Your task to perform on an android device: turn on sleep mode Image 0: 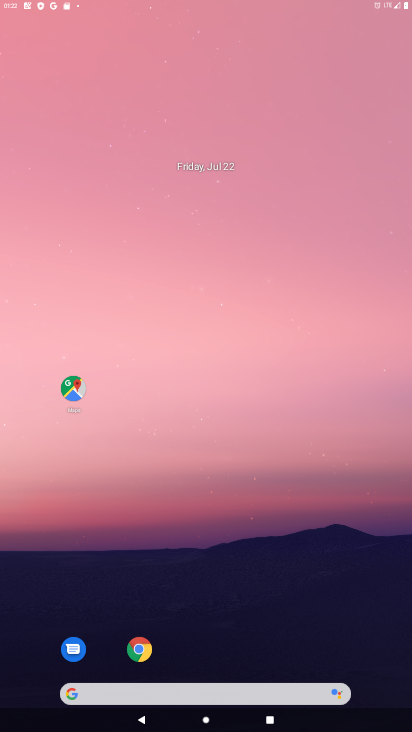
Step 0: click (272, 334)
Your task to perform on an android device: turn on sleep mode Image 1: 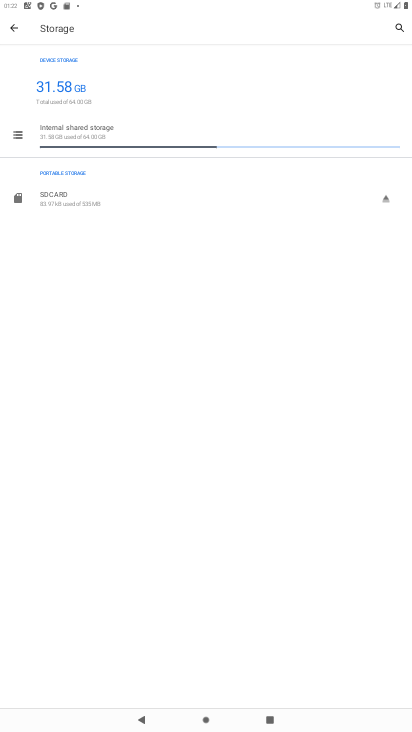
Step 1: press home button
Your task to perform on an android device: turn on sleep mode Image 2: 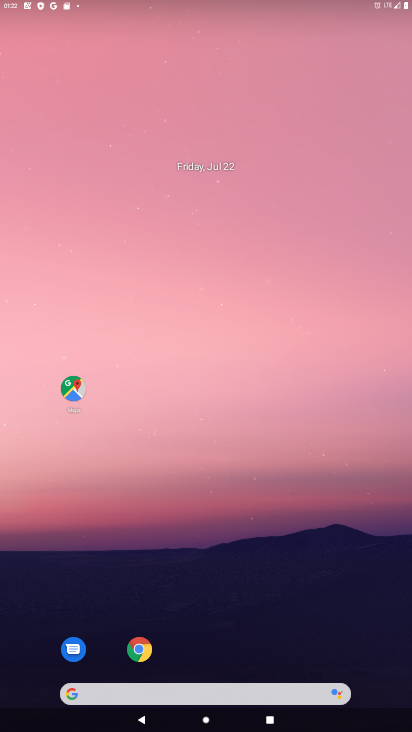
Step 2: drag from (297, 605) to (237, 5)
Your task to perform on an android device: turn on sleep mode Image 3: 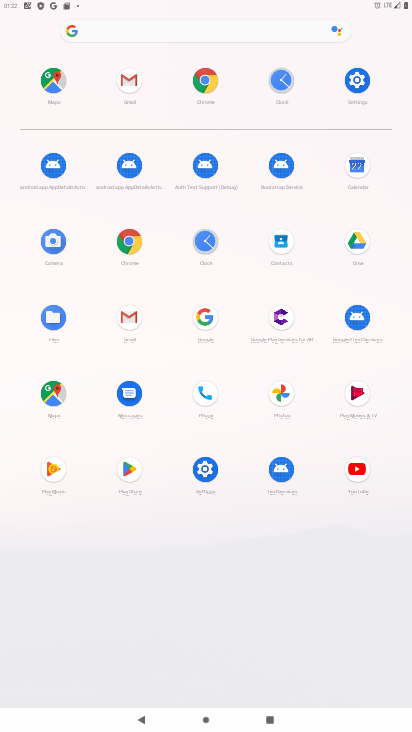
Step 3: click (358, 83)
Your task to perform on an android device: turn on sleep mode Image 4: 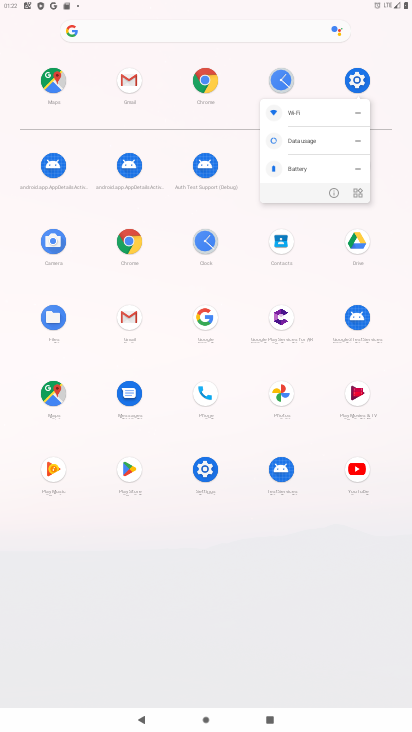
Step 4: click (357, 87)
Your task to perform on an android device: turn on sleep mode Image 5: 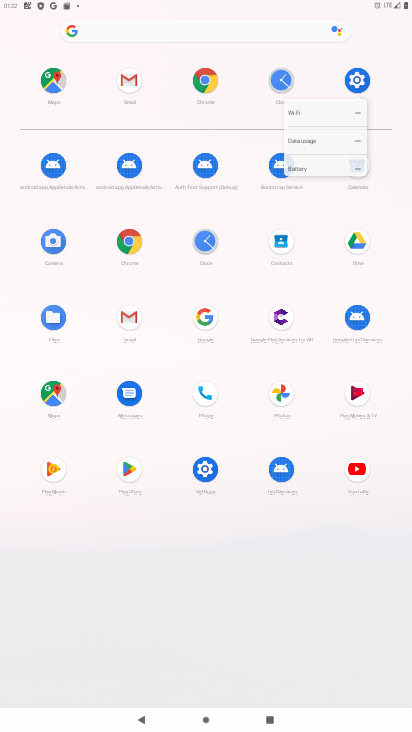
Step 5: click (358, 81)
Your task to perform on an android device: turn on sleep mode Image 6: 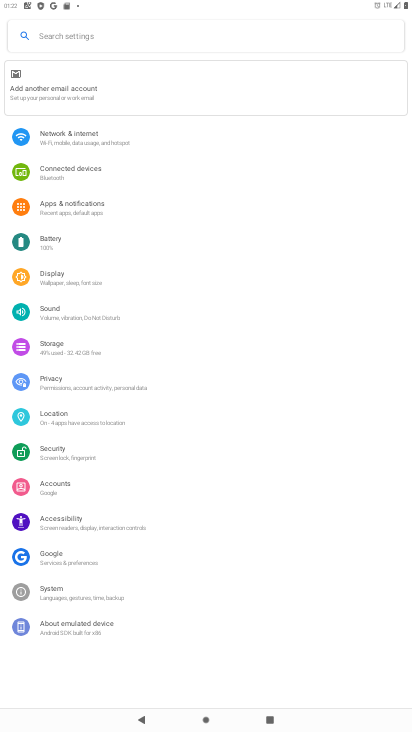
Step 6: click (48, 134)
Your task to perform on an android device: turn on sleep mode Image 7: 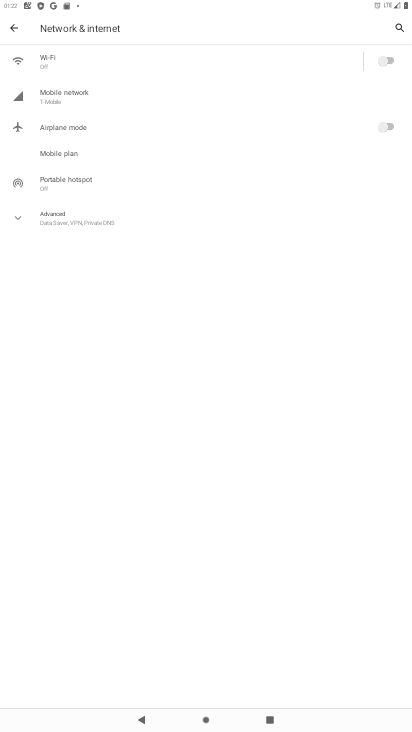
Step 7: click (8, 24)
Your task to perform on an android device: turn on sleep mode Image 8: 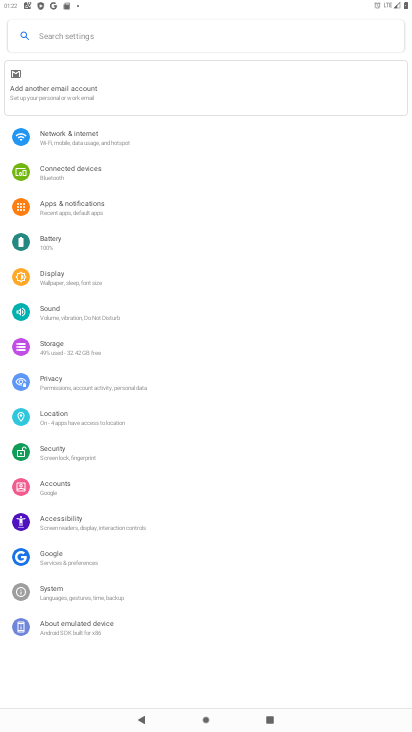
Step 8: click (61, 280)
Your task to perform on an android device: turn on sleep mode Image 9: 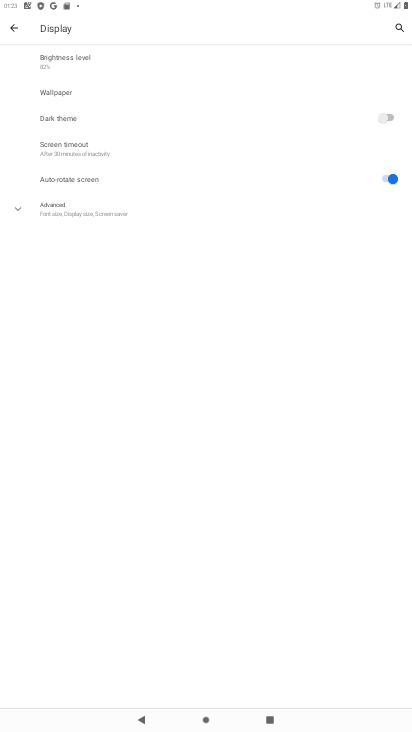
Step 9: click (86, 150)
Your task to perform on an android device: turn on sleep mode Image 10: 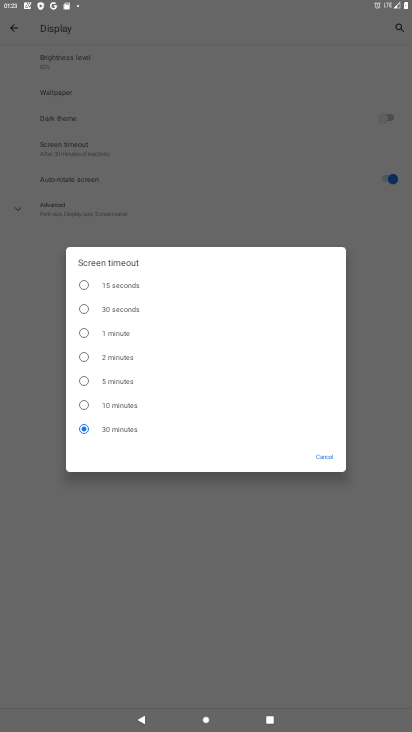
Step 10: task complete